Your task to perform on an android device: empty trash in google photos Image 0: 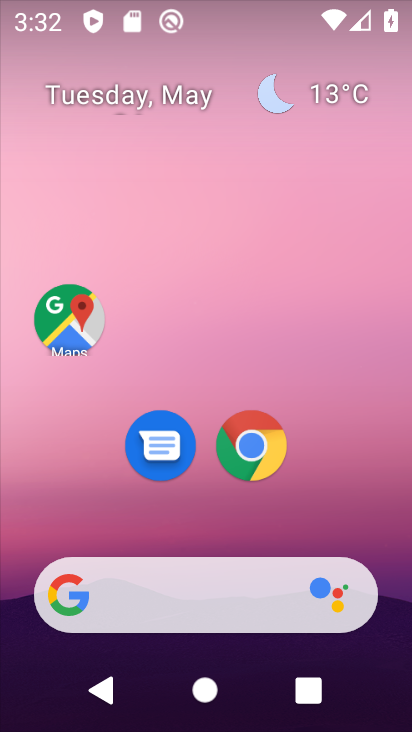
Step 0: press home button
Your task to perform on an android device: empty trash in google photos Image 1: 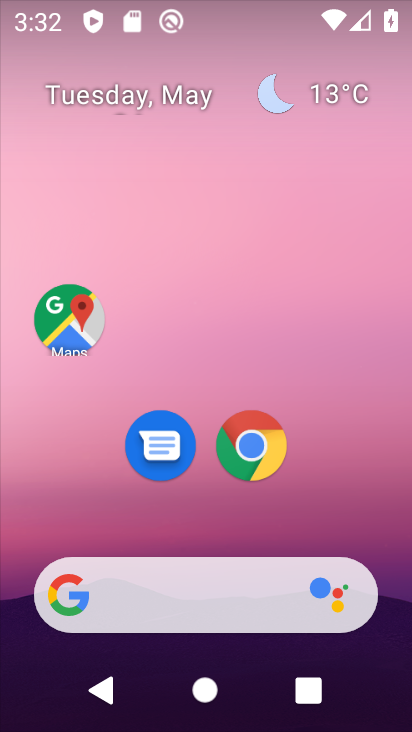
Step 1: drag from (212, 519) to (236, 20)
Your task to perform on an android device: empty trash in google photos Image 2: 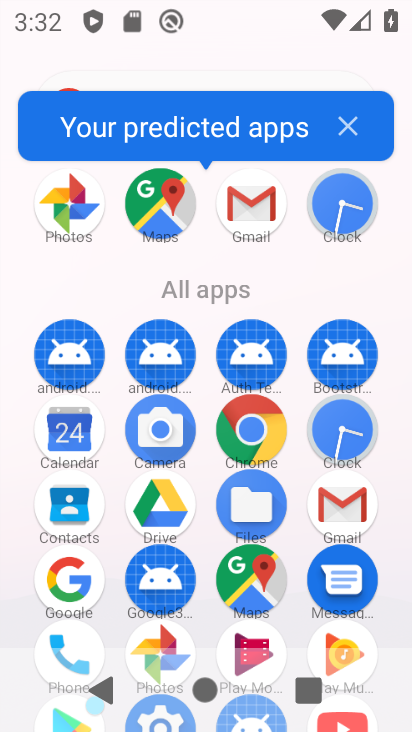
Step 2: drag from (204, 541) to (199, 101)
Your task to perform on an android device: empty trash in google photos Image 3: 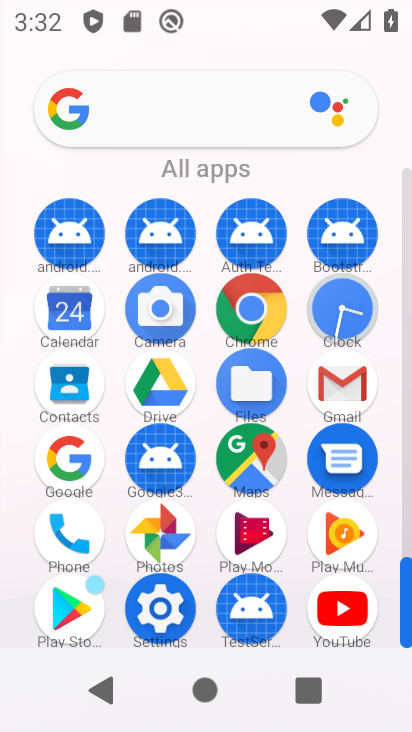
Step 3: click (158, 523)
Your task to perform on an android device: empty trash in google photos Image 4: 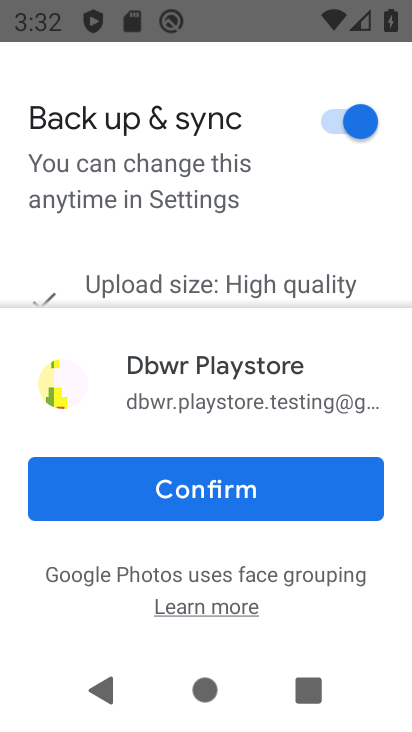
Step 4: click (132, 196)
Your task to perform on an android device: empty trash in google photos Image 5: 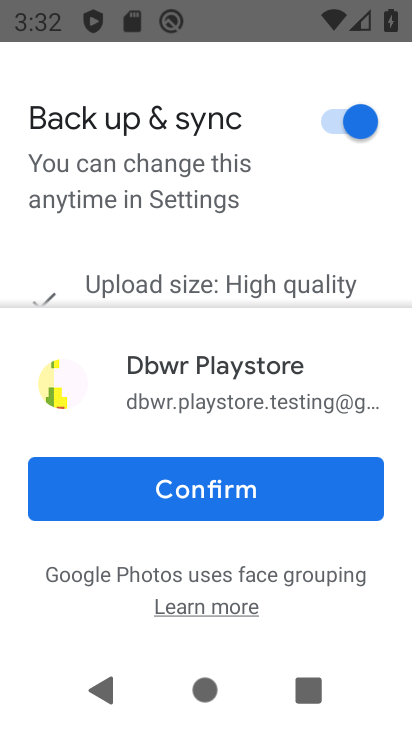
Step 5: click (208, 481)
Your task to perform on an android device: empty trash in google photos Image 6: 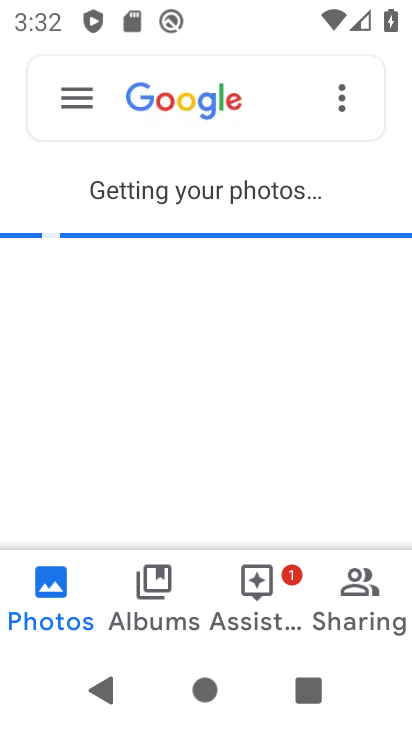
Step 6: click (75, 90)
Your task to perform on an android device: empty trash in google photos Image 7: 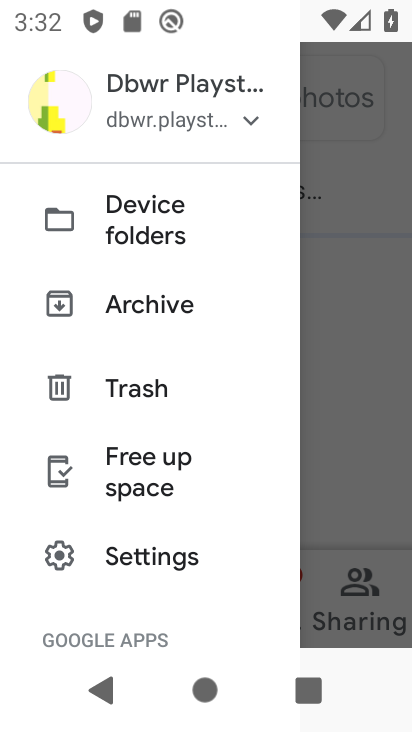
Step 7: click (92, 384)
Your task to perform on an android device: empty trash in google photos Image 8: 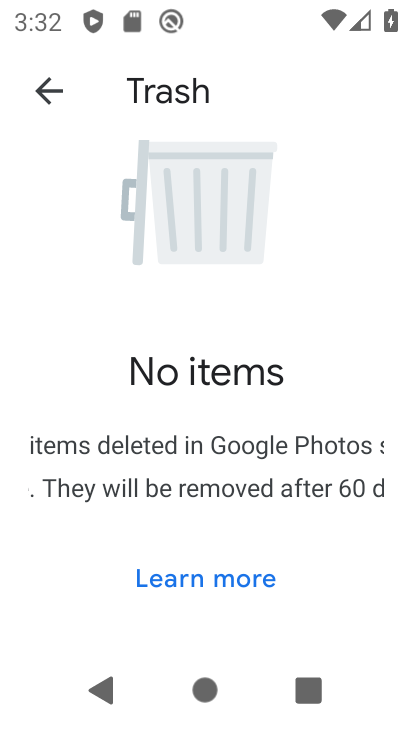
Step 8: task complete